Your task to perform on an android device: Clear the shopping cart on walmart. Search for "razer kraken" on walmart, select the first entry, and add it to the cart. Image 0: 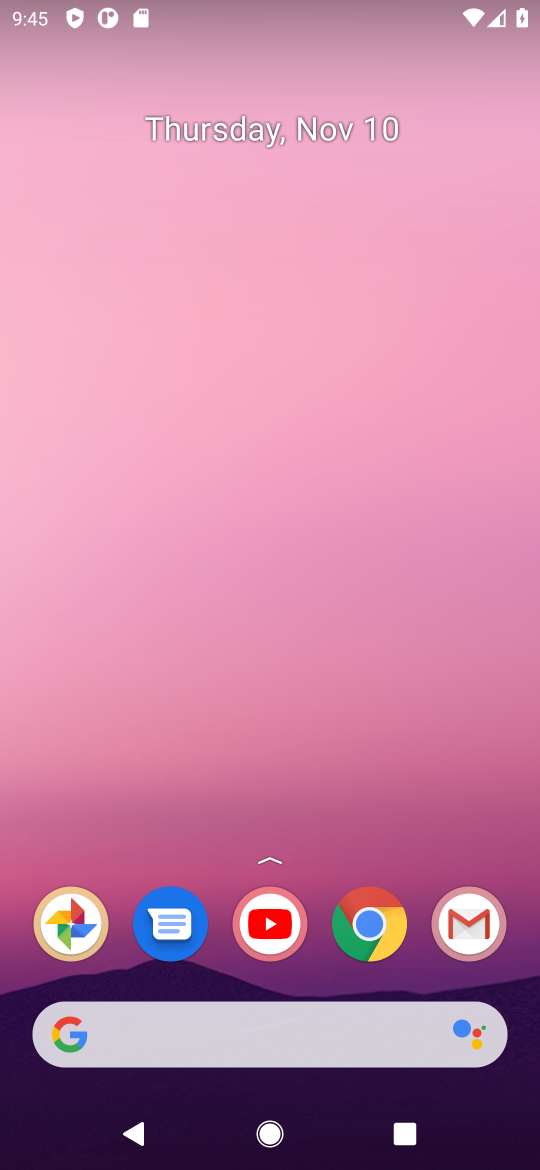
Step 0: click (376, 930)
Your task to perform on an android device: Clear the shopping cart on walmart. Search for "razer kraken" on walmart, select the first entry, and add it to the cart. Image 1: 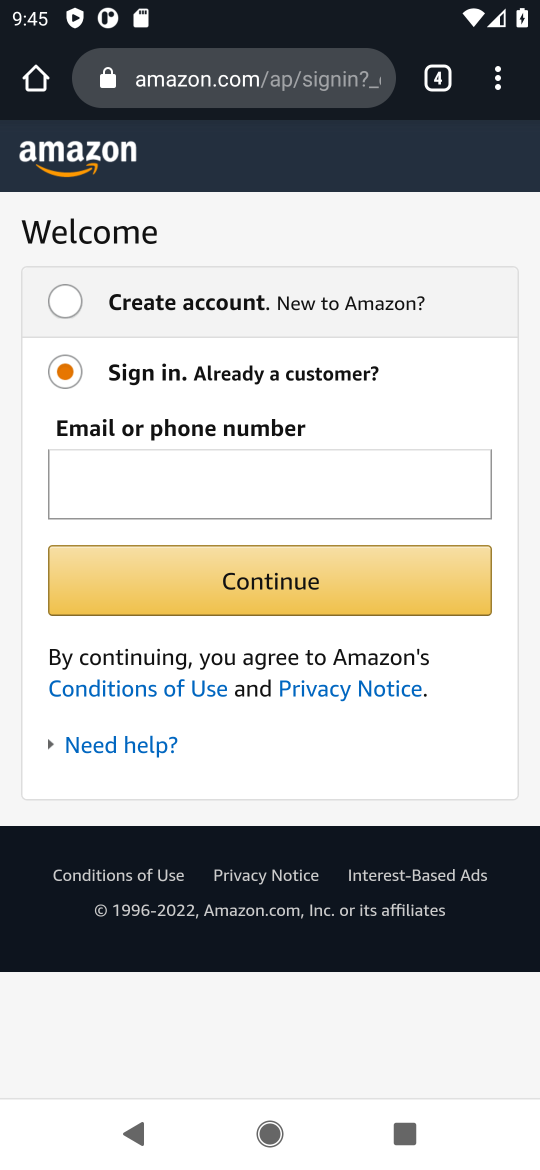
Step 1: click (231, 97)
Your task to perform on an android device: Clear the shopping cart on walmart. Search for "razer kraken" on walmart, select the first entry, and add it to the cart. Image 2: 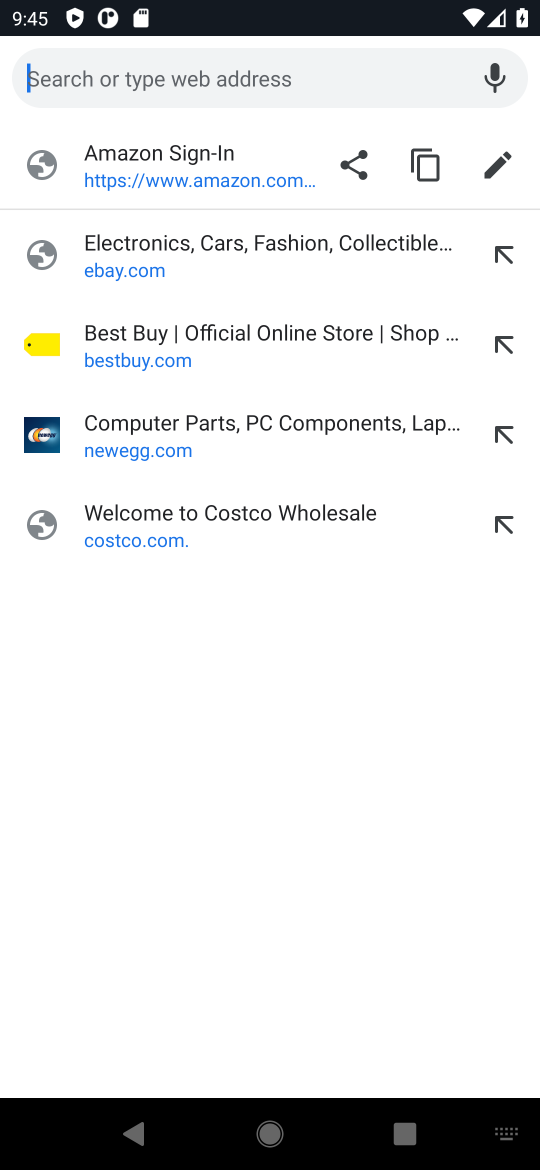
Step 2: type "walmart.com"
Your task to perform on an android device: Clear the shopping cart on walmart. Search for "razer kraken" on walmart, select the first entry, and add it to the cart. Image 3: 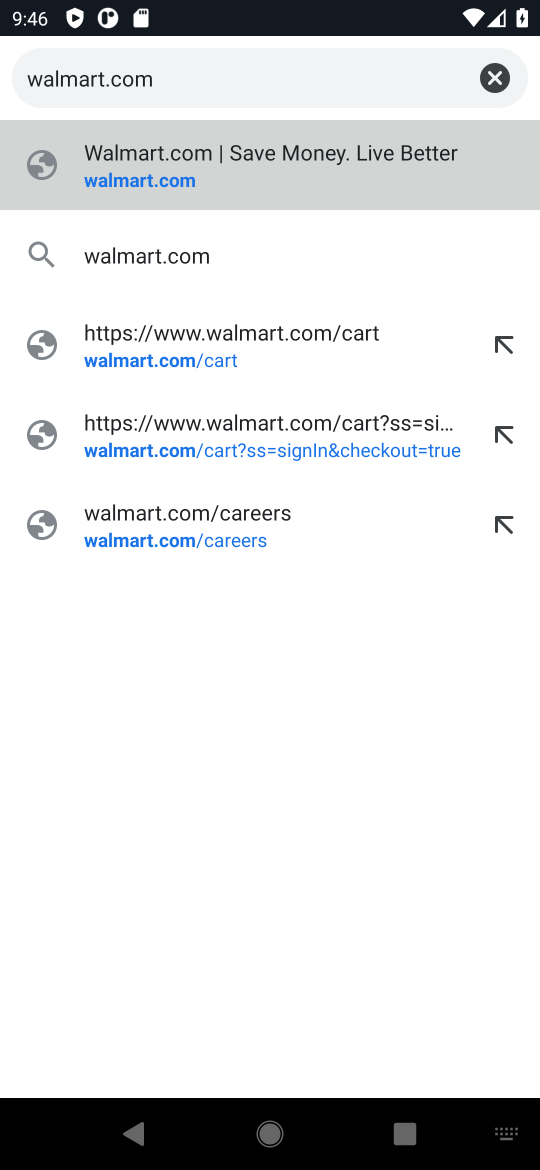
Step 3: click (153, 181)
Your task to perform on an android device: Clear the shopping cart on walmart. Search for "razer kraken" on walmart, select the first entry, and add it to the cart. Image 4: 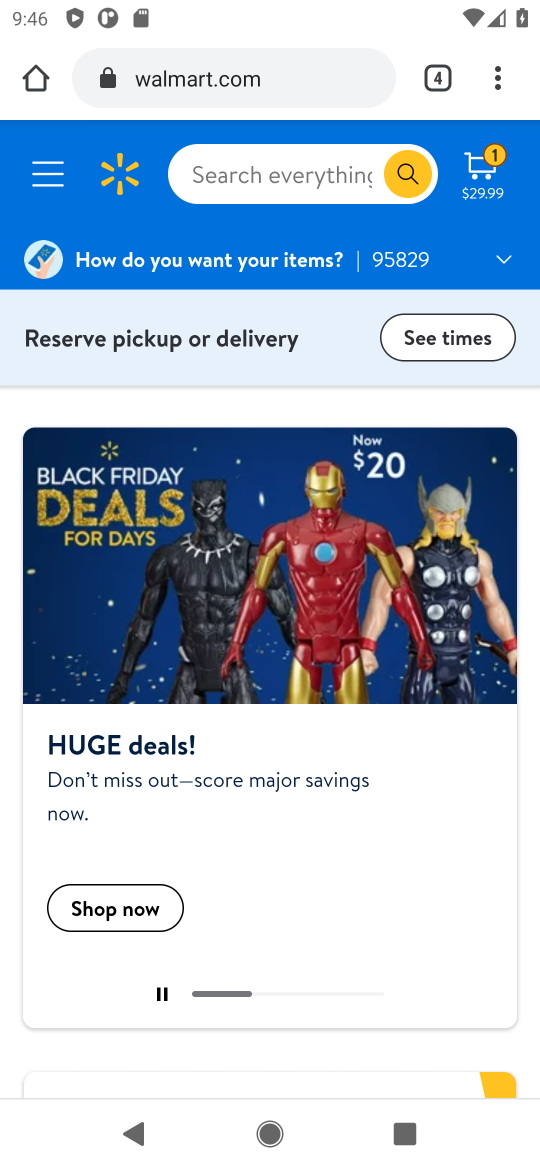
Step 4: click (479, 172)
Your task to perform on an android device: Clear the shopping cart on walmart. Search for "razer kraken" on walmart, select the first entry, and add it to the cart. Image 5: 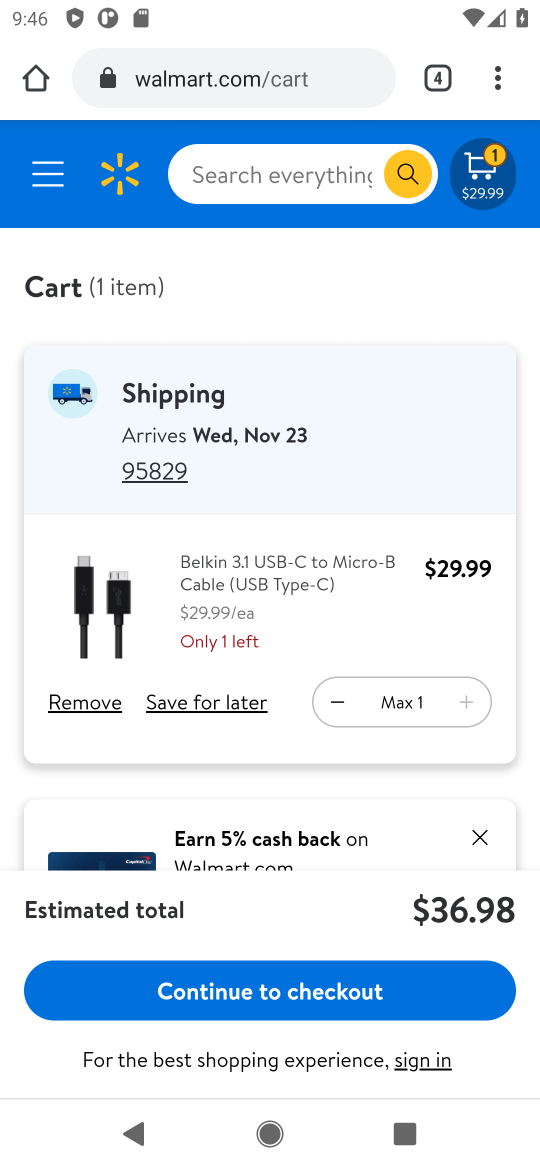
Step 5: click (70, 705)
Your task to perform on an android device: Clear the shopping cart on walmart. Search for "razer kraken" on walmart, select the first entry, and add it to the cart. Image 6: 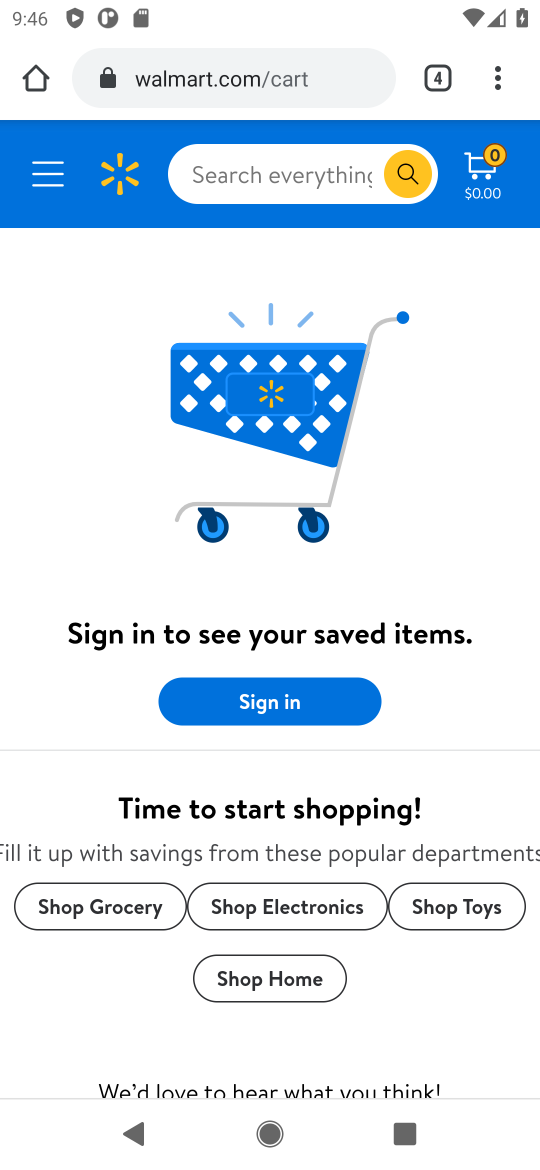
Step 6: click (213, 177)
Your task to perform on an android device: Clear the shopping cart on walmart. Search for "razer kraken" on walmart, select the first entry, and add it to the cart. Image 7: 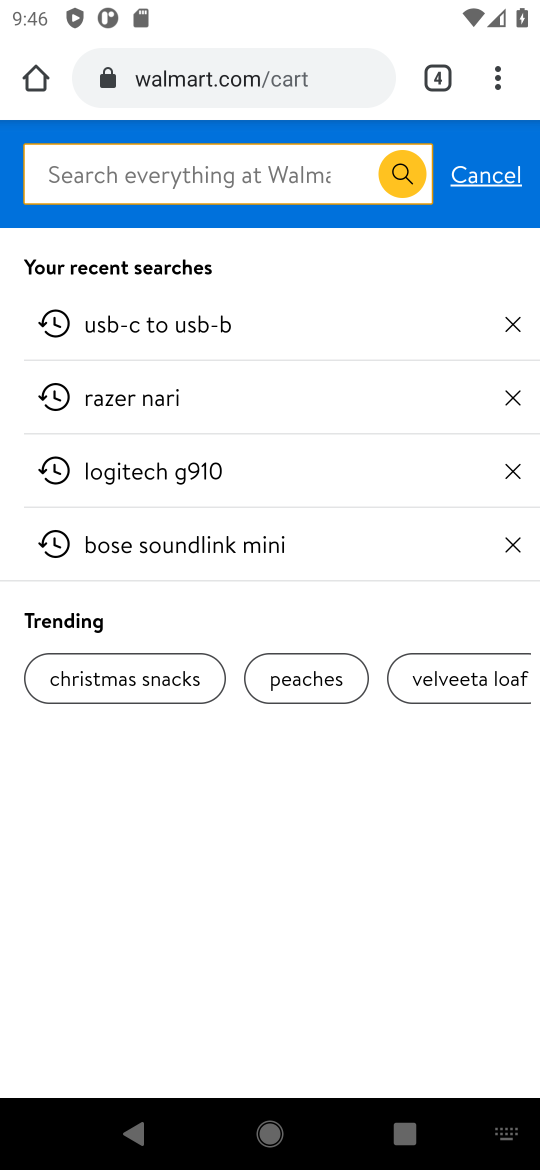
Step 7: type "razer kraken"
Your task to perform on an android device: Clear the shopping cart on walmart. Search for "razer kraken" on walmart, select the first entry, and add it to the cart. Image 8: 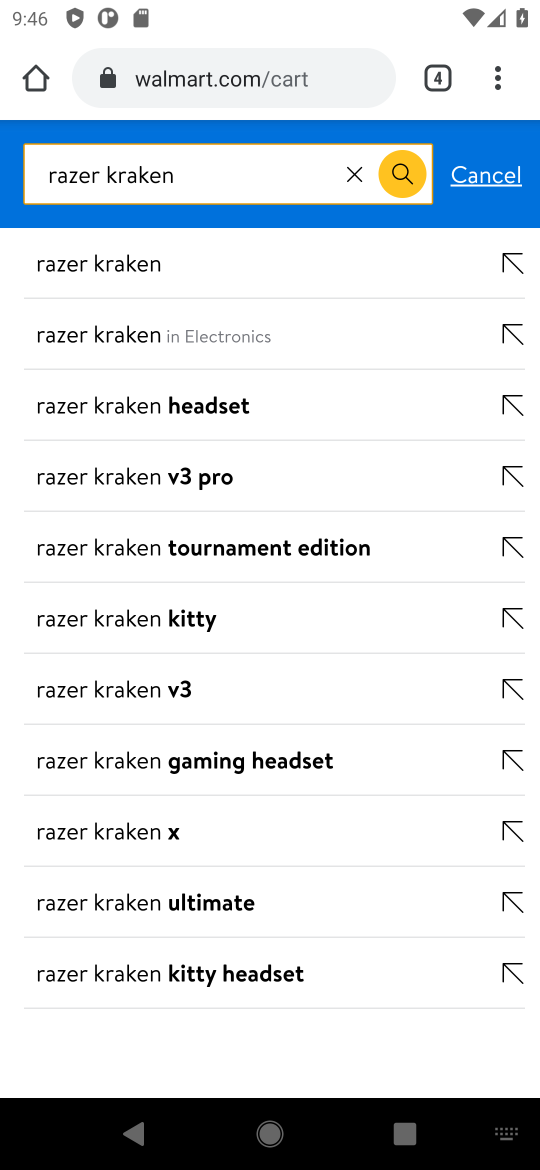
Step 8: click (129, 270)
Your task to perform on an android device: Clear the shopping cart on walmart. Search for "razer kraken" on walmart, select the first entry, and add it to the cart. Image 9: 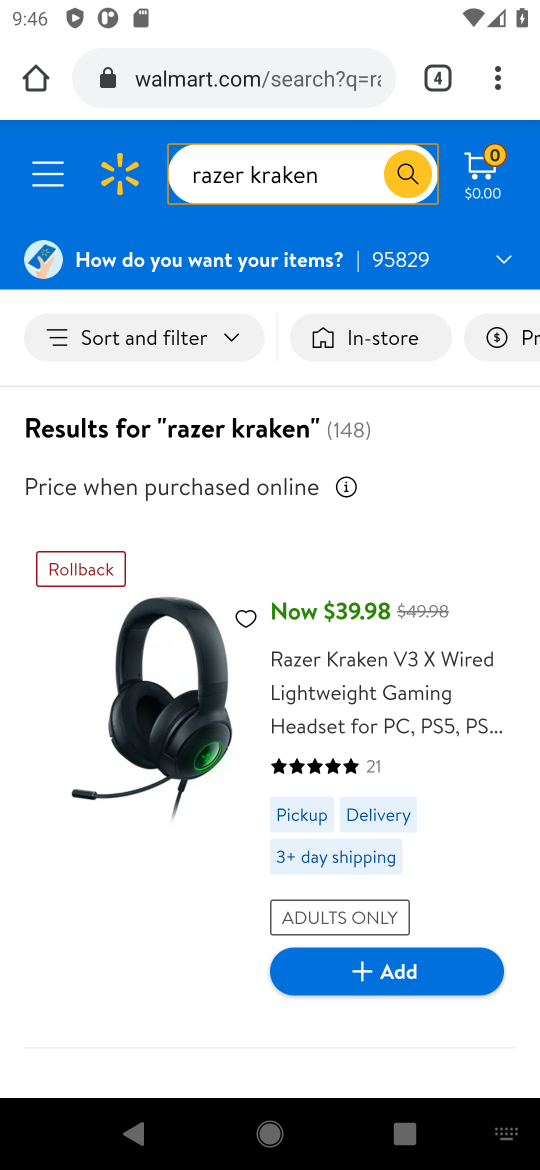
Step 9: click (323, 709)
Your task to perform on an android device: Clear the shopping cart on walmart. Search for "razer kraken" on walmart, select the first entry, and add it to the cart. Image 10: 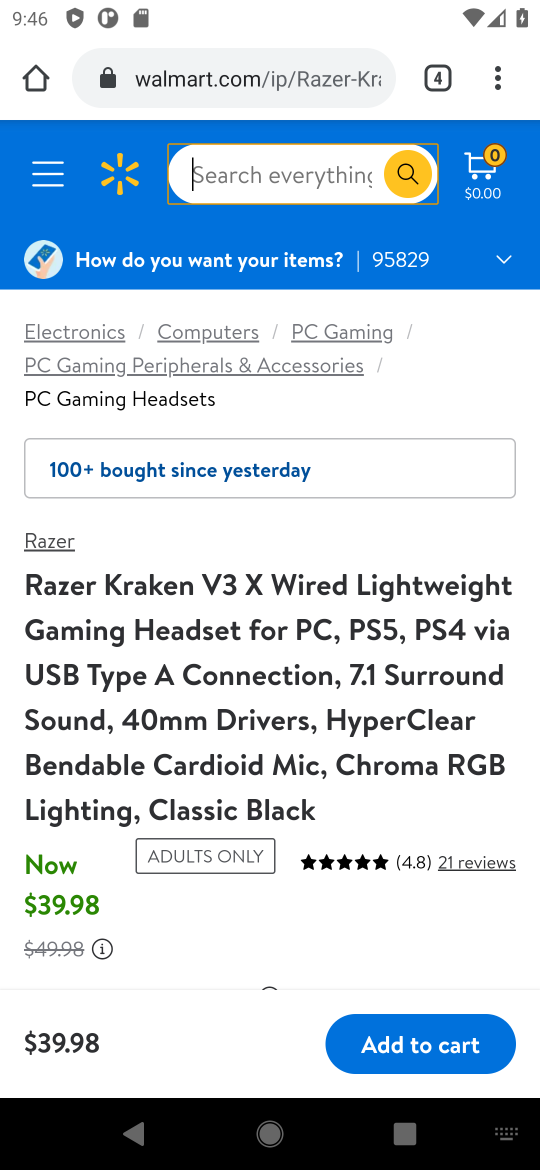
Step 10: click (412, 1056)
Your task to perform on an android device: Clear the shopping cart on walmart. Search for "razer kraken" on walmart, select the first entry, and add it to the cart. Image 11: 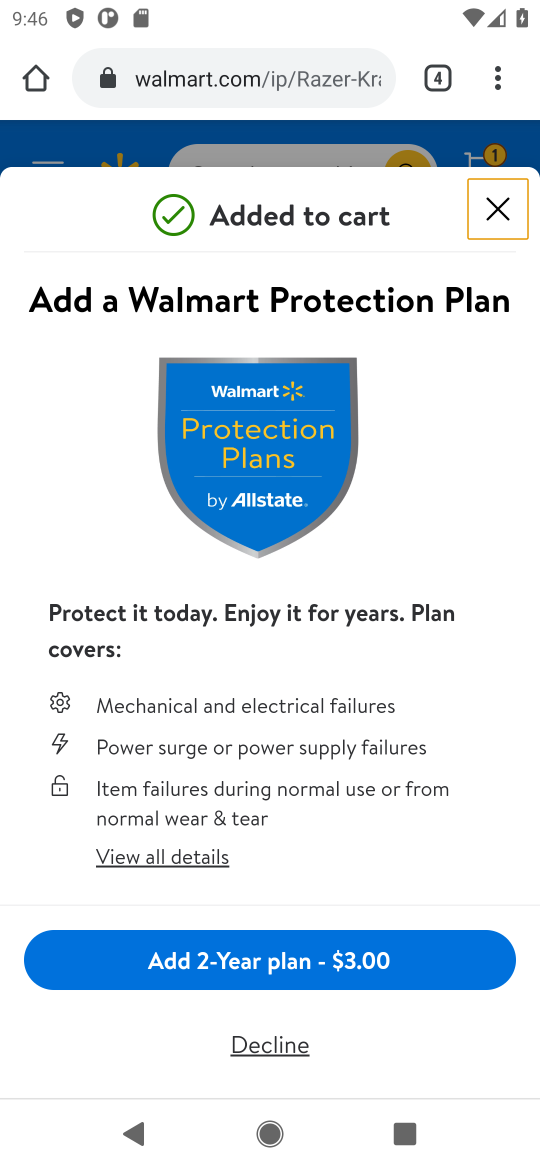
Step 11: task complete